Your task to perform on an android device: Clear the cart on walmart.com. Add logitech g pro to the cart on walmart.com Image 0: 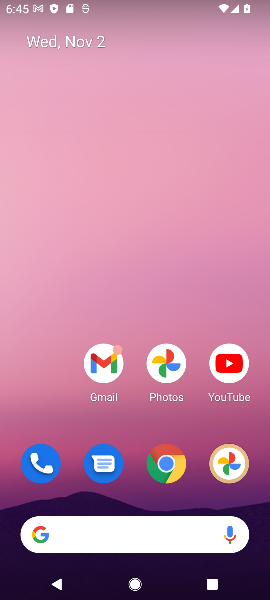
Step 0: click (162, 471)
Your task to perform on an android device: Clear the cart on walmart.com. Add logitech g pro to the cart on walmart.com Image 1: 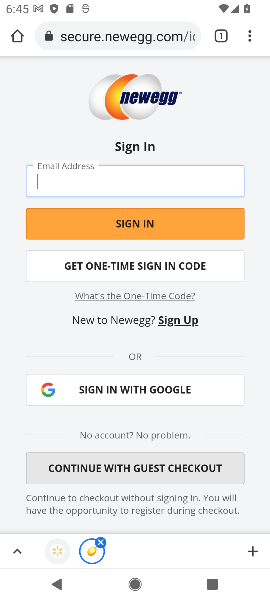
Step 1: click (110, 38)
Your task to perform on an android device: Clear the cart on walmart.com. Add logitech g pro to the cart on walmart.com Image 2: 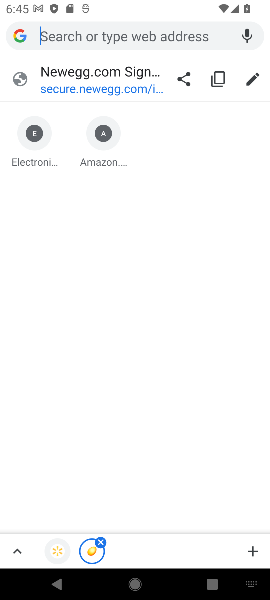
Step 2: type "walmart.com"
Your task to perform on an android device: Clear the cart on walmart.com. Add logitech g pro to the cart on walmart.com Image 3: 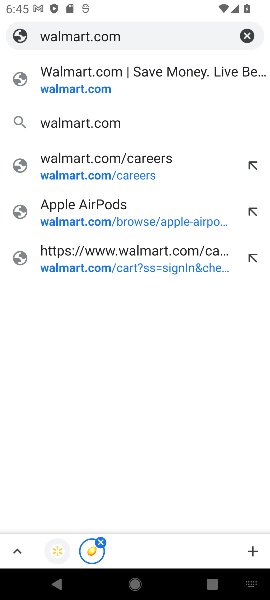
Step 3: click (69, 90)
Your task to perform on an android device: Clear the cart on walmart.com. Add logitech g pro to the cart on walmart.com Image 4: 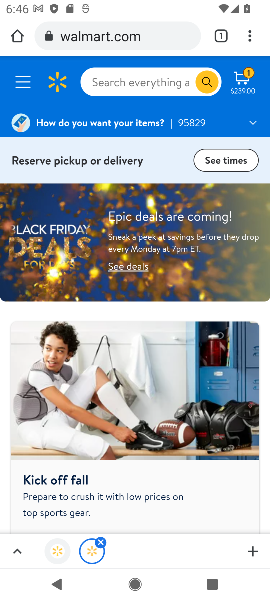
Step 4: click (240, 80)
Your task to perform on an android device: Clear the cart on walmart.com. Add logitech g pro to the cart on walmart.com Image 5: 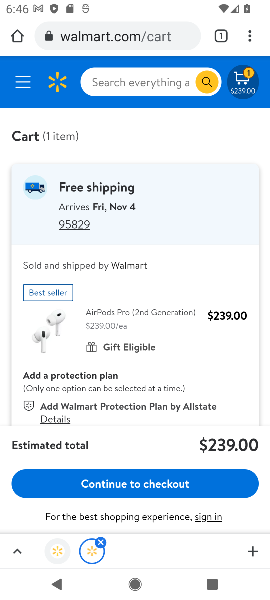
Step 5: drag from (187, 362) to (188, 259)
Your task to perform on an android device: Clear the cart on walmart.com. Add logitech g pro to the cart on walmart.com Image 6: 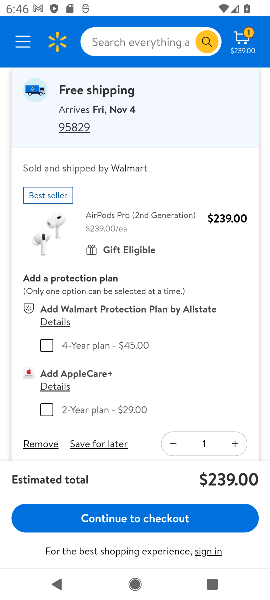
Step 6: click (35, 442)
Your task to perform on an android device: Clear the cart on walmart.com. Add logitech g pro to the cart on walmart.com Image 7: 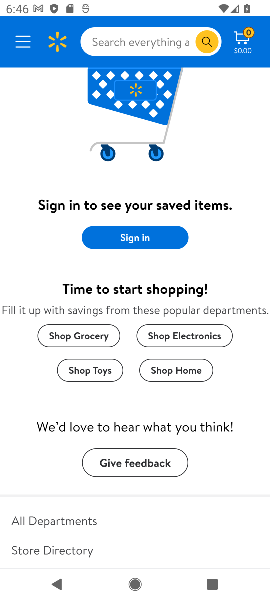
Step 7: click (130, 45)
Your task to perform on an android device: Clear the cart on walmart.com. Add logitech g pro to the cart on walmart.com Image 8: 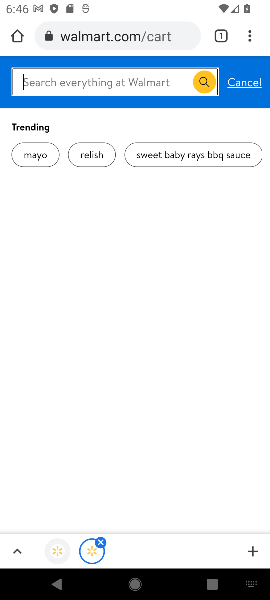
Step 8: type " logitech g pro"
Your task to perform on an android device: Clear the cart on walmart.com. Add logitech g pro to the cart on walmart.com Image 9: 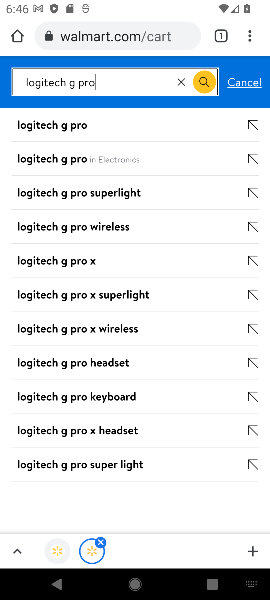
Step 9: click (66, 130)
Your task to perform on an android device: Clear the cart on walmart.com. Add logitech g pro to the cart on walmart.com Image 10: 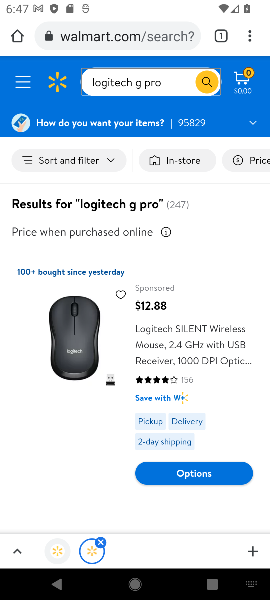
Step 10: drag from (115, 405) to (120, 178)
Your task to perform on an android device: Clear the cart on walmart.com. Add logitech g pro to the cart on walmart.com Image 11: 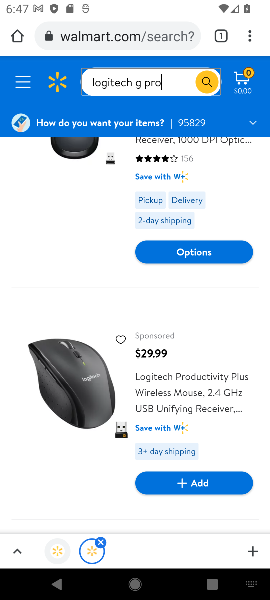
Step 11: drag from (93, 453) to (85, 214)
Your task to perform on an android device: Clear the cart on walmart.com. Add logitech g pro to the cart on walmart.com Image 12: 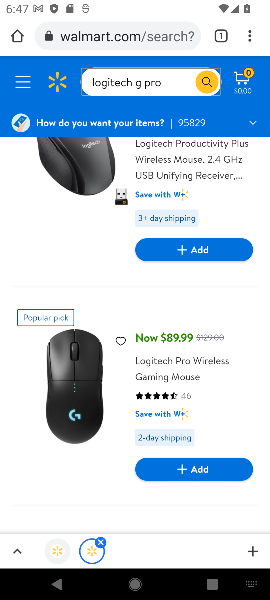
Step 12: click (84, 399)
Your task to perform on an android device: Clear the cart on walmart.com. Add logitech g pro to the cart on walmart.com Image 13: 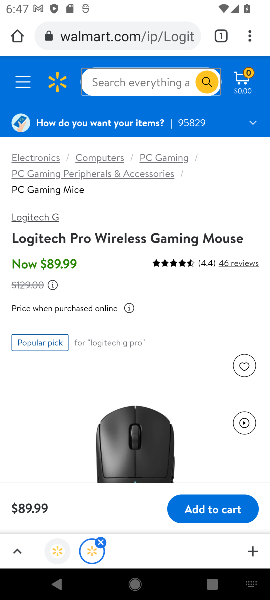
Step 13: click (192, 505)
Your task to perform on an android device: Clear the cart on walmart.com. Add logitech g pro to the cart on walmart.com Image 14: 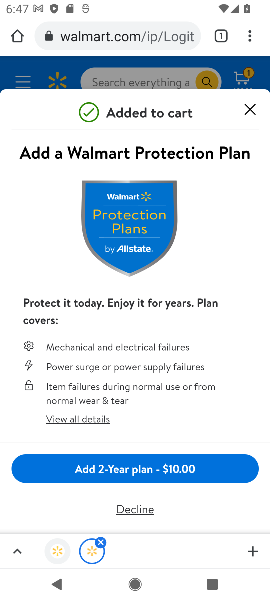
Step 14: task complete